Your task to perform on an android device: open chrome privacy settings Image 0: 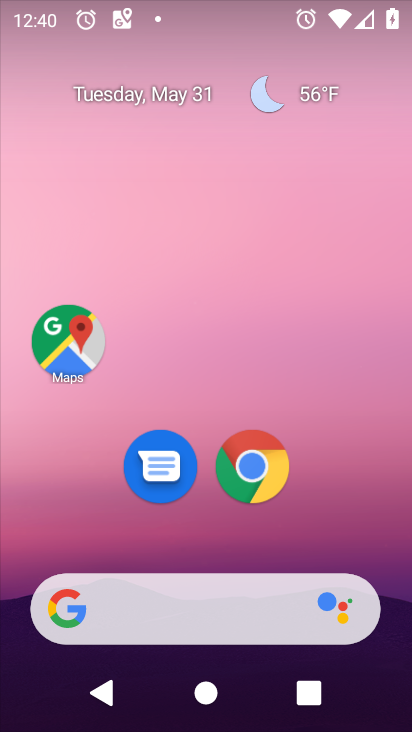
Step 0: click (253, 472)
Your task to perform on an android device: open chrome privacy settings Image 1: 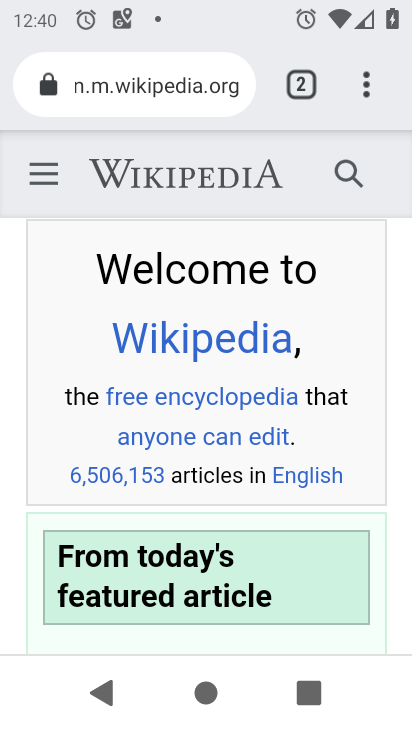
Step 1: drag from (370, 82) to (117, 508)
Your task to perform on an android device: open chrome privacy settings Image 2: 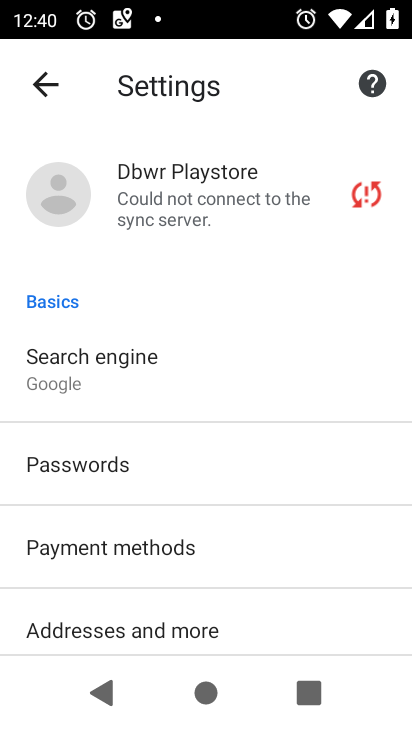
Step 2: drag from (166, 566) to (130, 198)
Your task to perform on an android device: open chrome privacy settings Image 3: 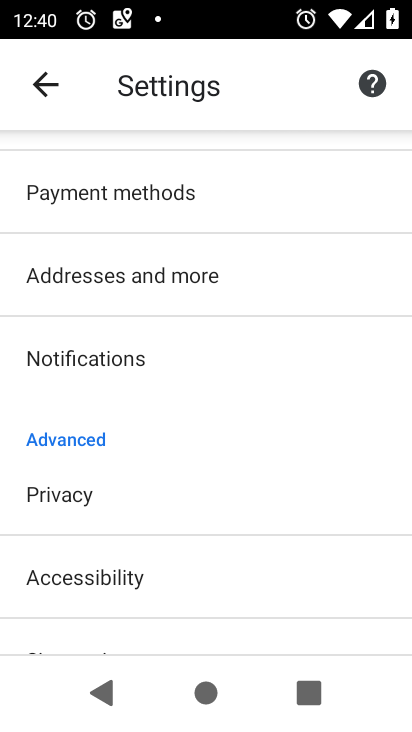
Step 3: click (128, 470)
Your task to perform on an android device: open chrome privacy settings Image 4: 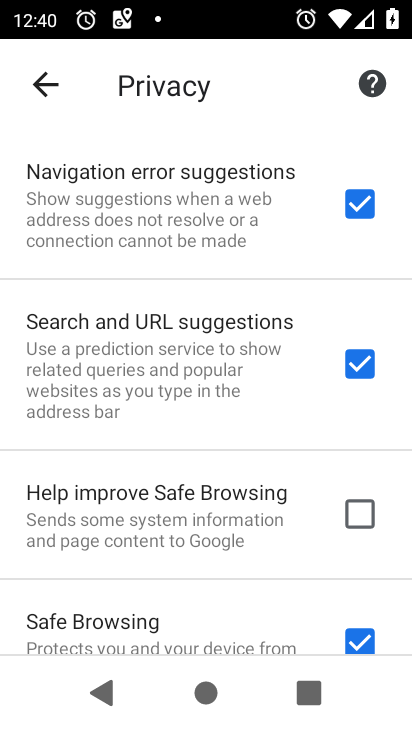
Step 4: task complete